Your task to perform on an android device: open sync settings in chrome Image 0: 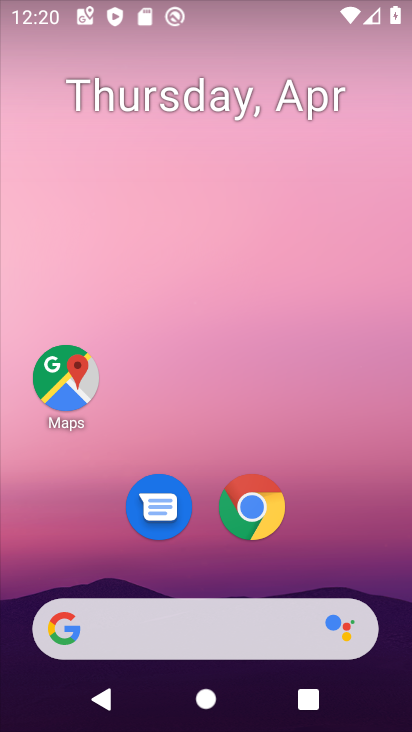
Step 0: click (253, 507)
Your task to perform on an android device: open sync settings in chrome Image 1: 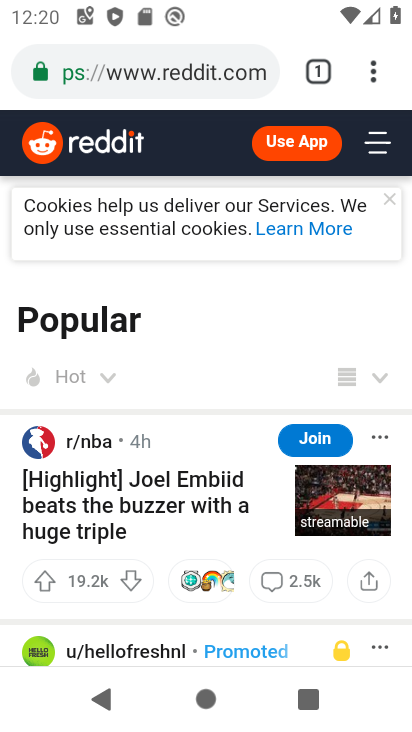
Step 1: click (374, 70)
Your task to perform on an android device: open sync settings in chrome Image 2: 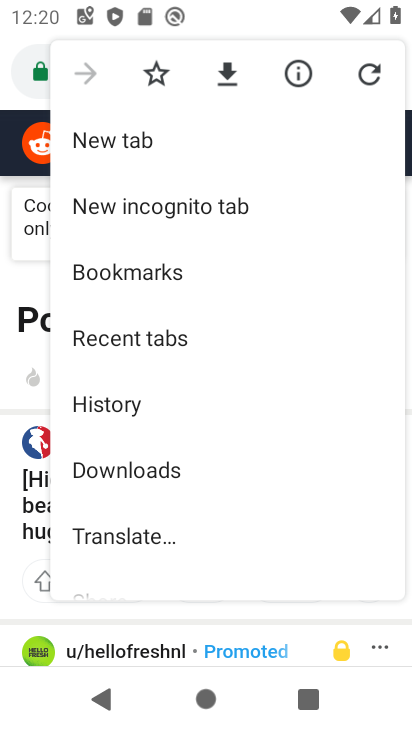
Step 2: drag from (191, 445) to (226, 331)
Your task to perform on an android device: open sync settings in chrome Image 3: 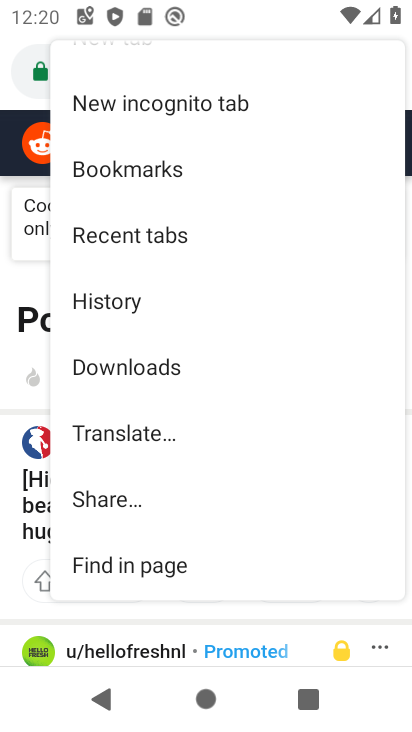
Step 3: drag from (210, 467) to (241, 387)
Your task to perform on an android device: open sync settings in chrome Image 4: 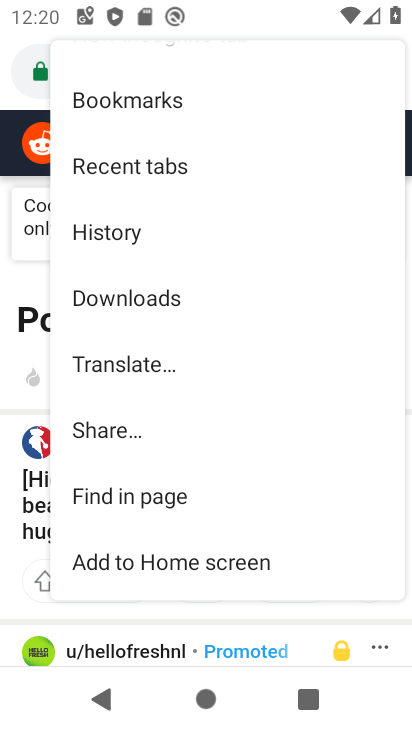
Step 4: drag from (216, 462) to (258, 355)
Your task to perform on an android device: open sync settings in chrome Image 5: 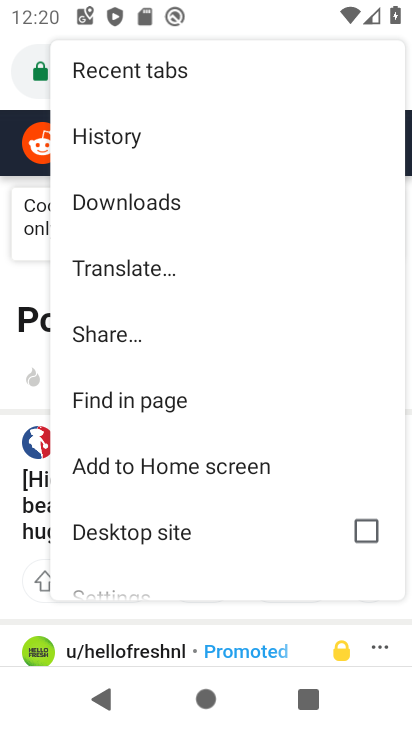
Step 5: drag from (210, 498) to (242, 395)
Your task to perform on an android device: open sync settings in chrome Image 6: 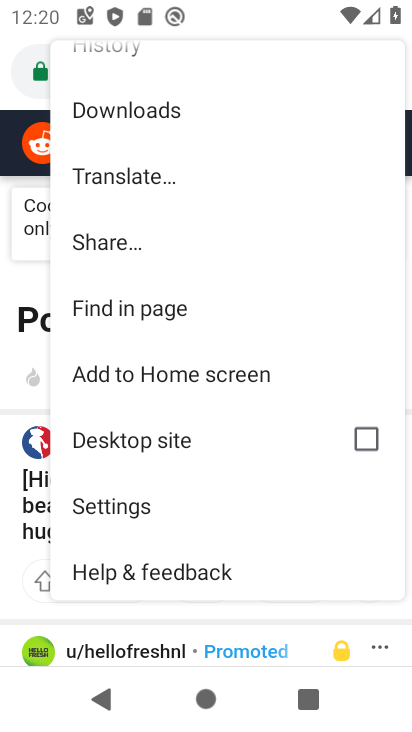
Step 6: click (139, 506)
Your task to perform on an android device: open sync settings in chrome Image 7: 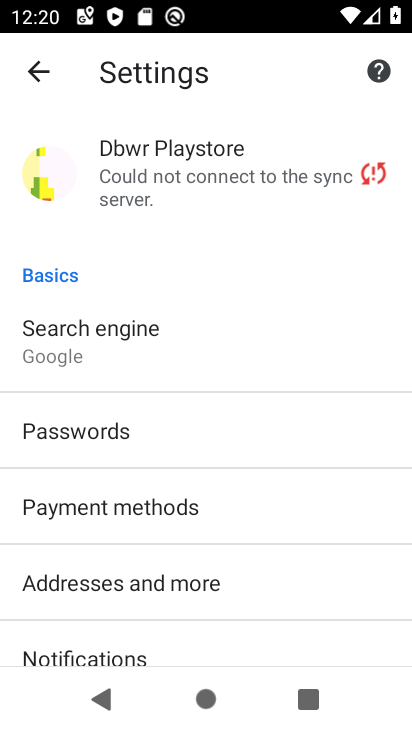
Step 7: drag from (186, 572) to (223, 479)
Your task to perform on an android device: open sync settings in chrome Image 8: 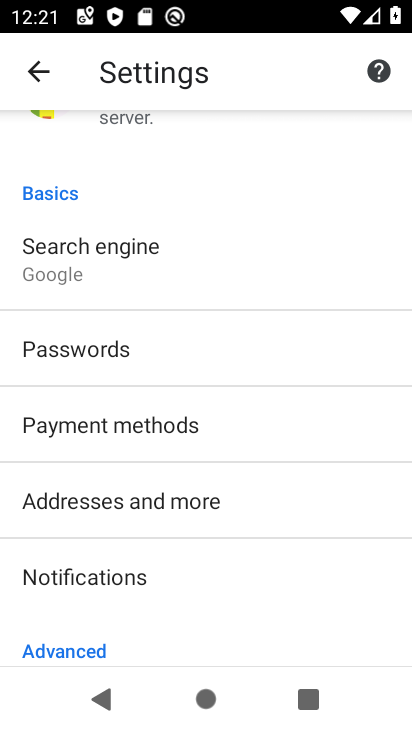
Step 8: drag from (176, 622) to (251, 494)
Your task to perform on an android device: open sync settings in chrome Image 9: 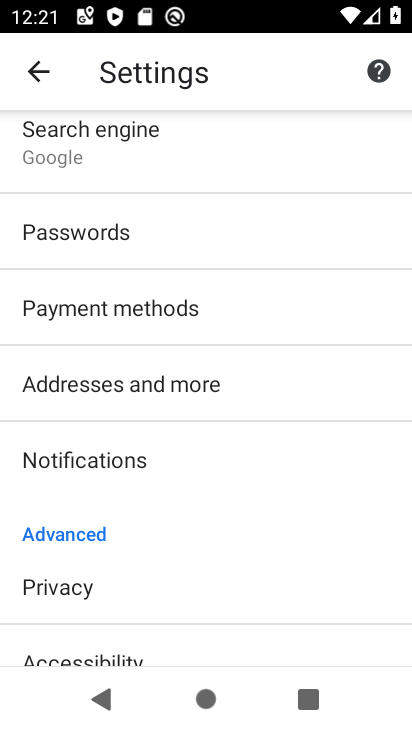
Step 9: drag from (164, 593) to (251, 477)
Your task to perform on an android device: open sync settings in chrome Image 10: 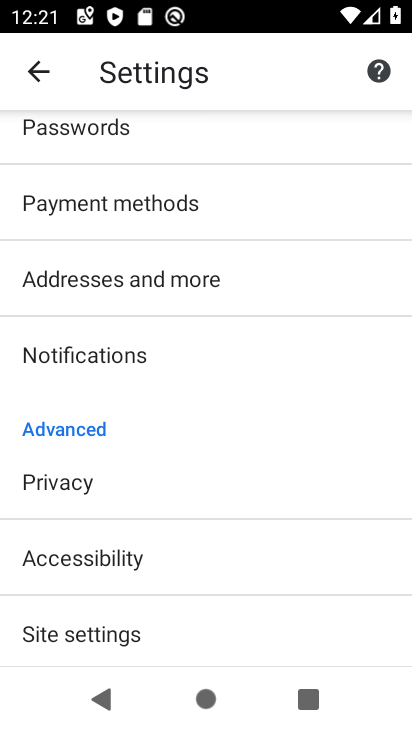
Step 10: drag from (186, 592) to (255, 514)
Your task to perform on an android device: open sync settings in chrome Image 11: 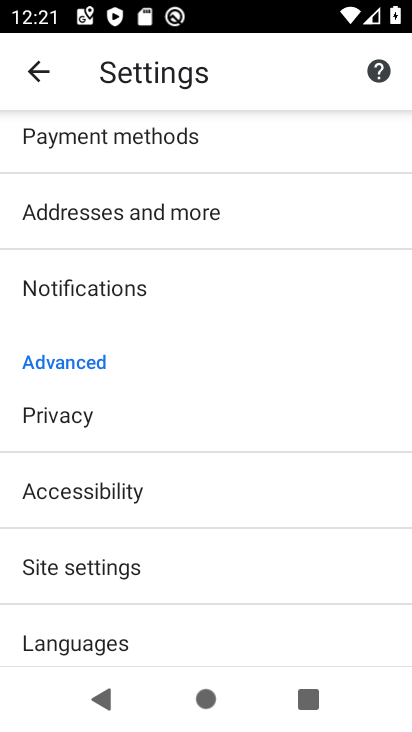
Step 11: click (116, 564)
Your task to perform on an android device: open sync settings in chrome Image 12: 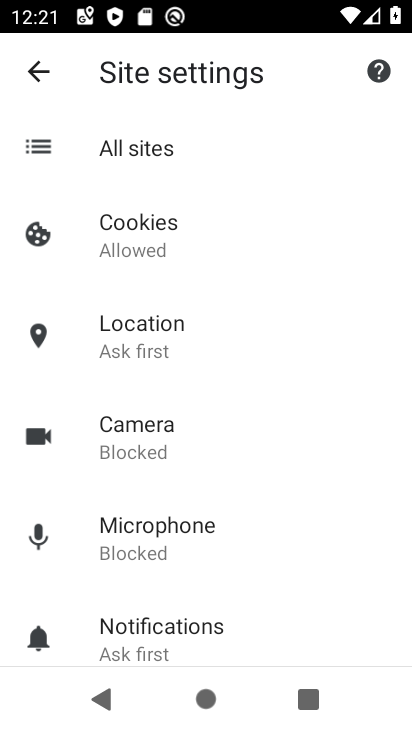
Step 12: drag from (242, 485) to (295, 421)
Your task to perform on an android device: open sync settings in chrome Image 13: 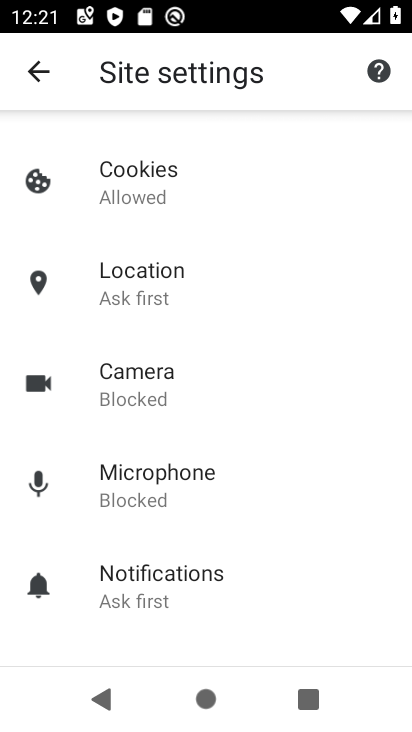
Step 13: drag from (237, 508) to (274, 434)
Your task to perform on an android device: open sync settings in chrome Image 14: 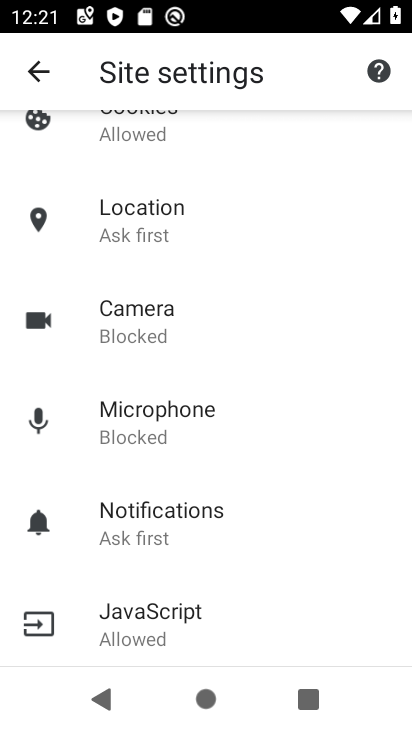
Step 14: drag from (218, 548) to (242, 456)
Your task to perform on an android device: open sync settings in chrome Image 15: 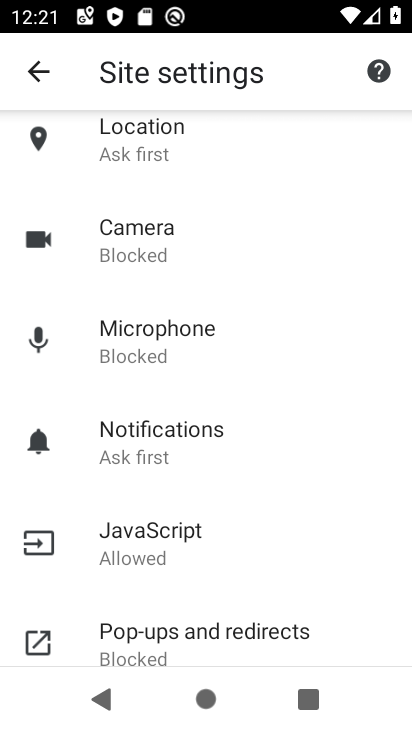
Step 15: drag from (235, 561) to (272, 471)
Your task to perform on an android device: open sync settings in chrome Image 16: 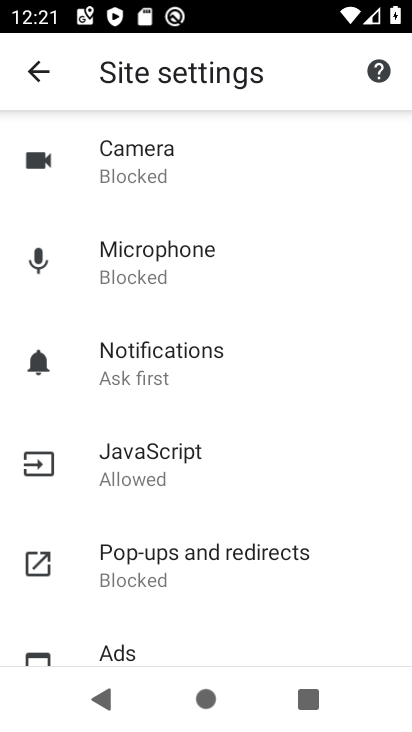
Step 16: drag from (225, 590) to (280, 496)
Your task to perform on an android device: open sync settings in chrome Image 17: 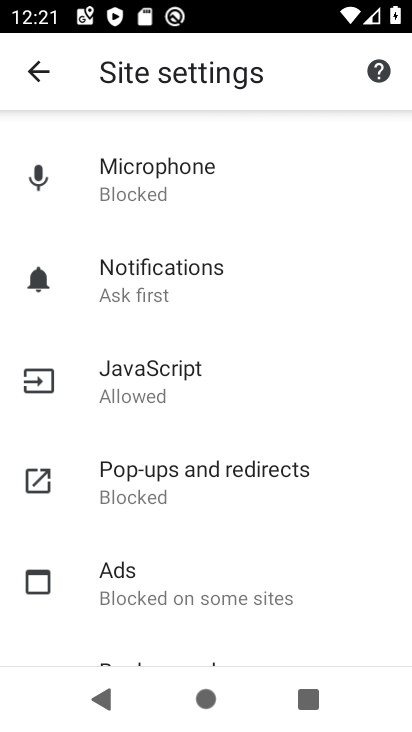
Step 17: drag from (209, 564) to (283, 441)
Your task to perform on an android device: open sync settings in chrome Image 18: 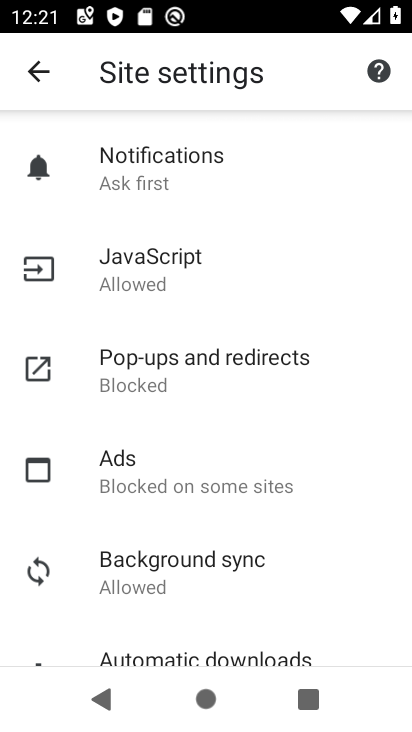
Step 18: click (228, 554)
Your task to perform on an android device: open sync settings in chrome Image 19: 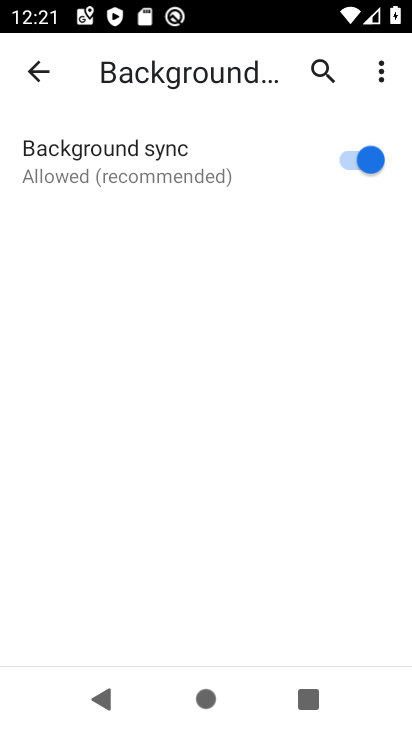
Step 19: task complete